Your task to perform on an android device: Add duracell triple a to the cart on walmart.com Image 0: 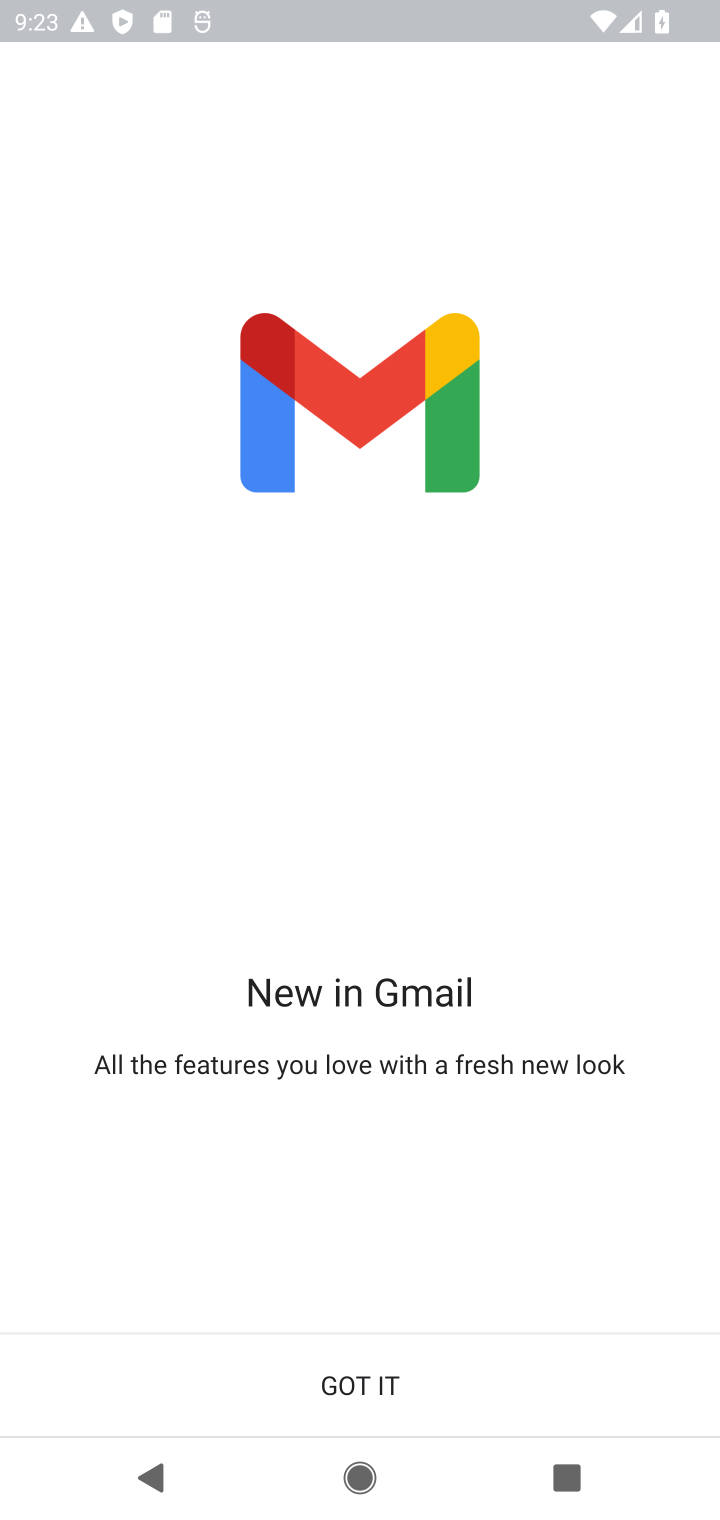
Step 0: press home button
Your task to perform on an android device: Add duracell triple a to the cart on walmart.com Image 1: 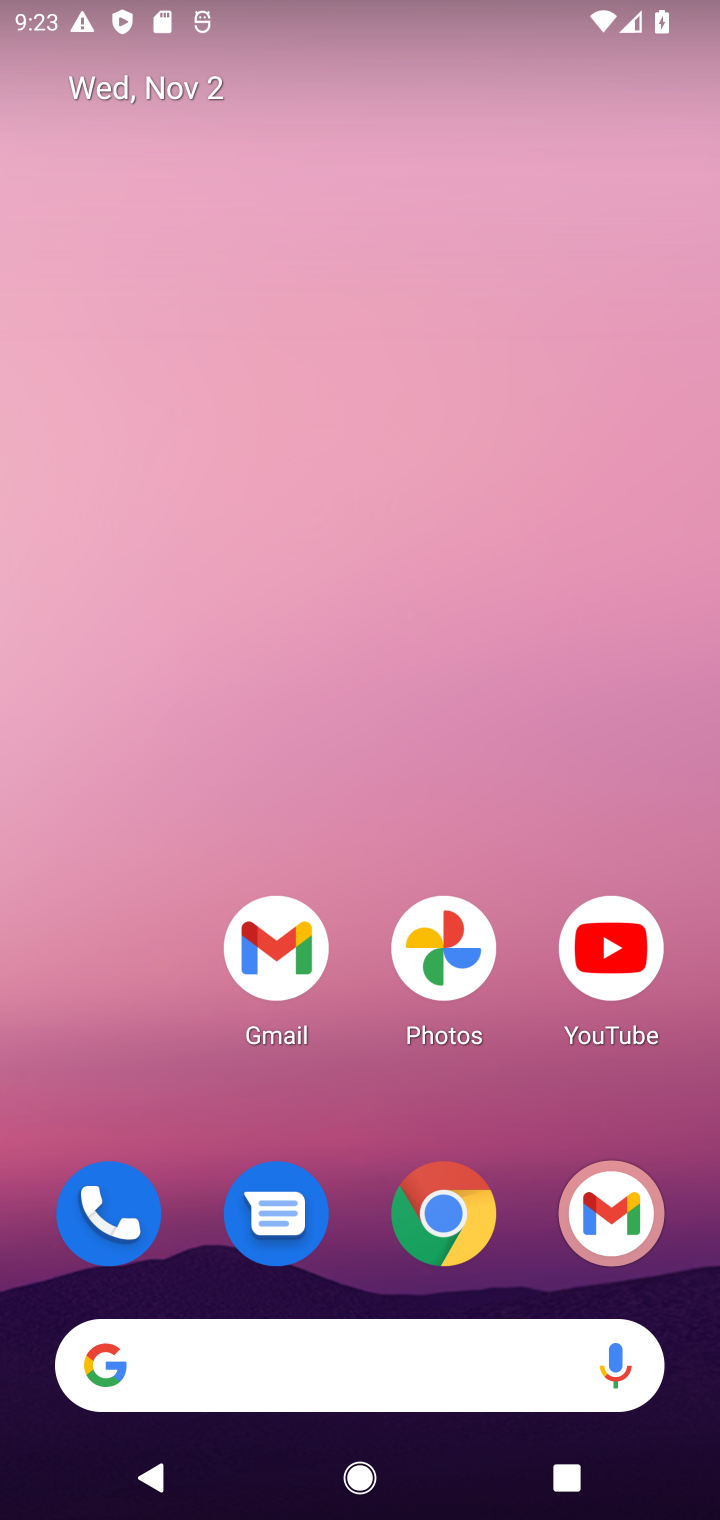
Step 1: click (458, 1208)
Your task to perform on an android device: Add duracell triple a to the cart on walmart.com Image 2: 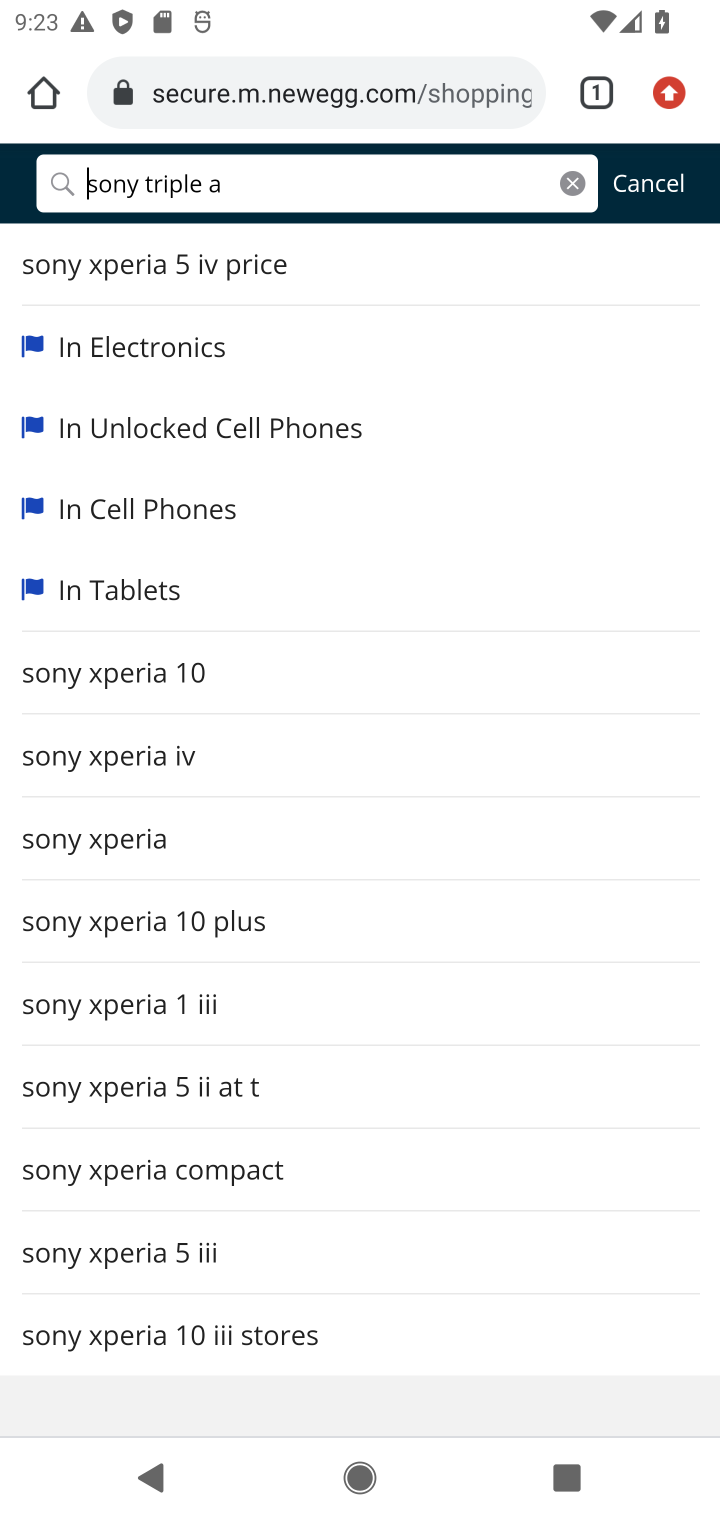
Step 2: click (262, 112)
Your task to perform on an android device: Add duracell triple a to the cart on walmart.com Image 3: 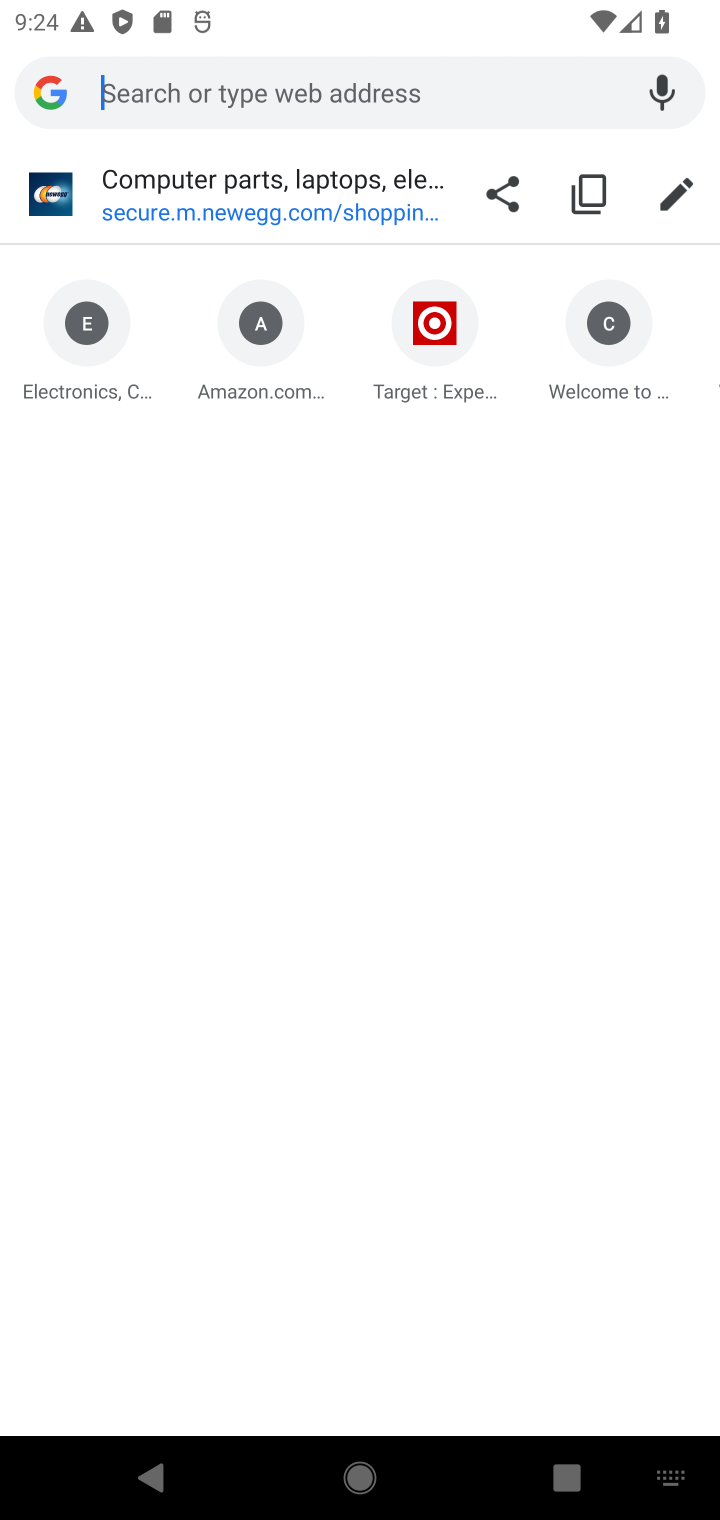
Step 3: type "walmart.com"
Your task to perform on an android device: Add duracell triple a to the cart on walmart.com Image 4: 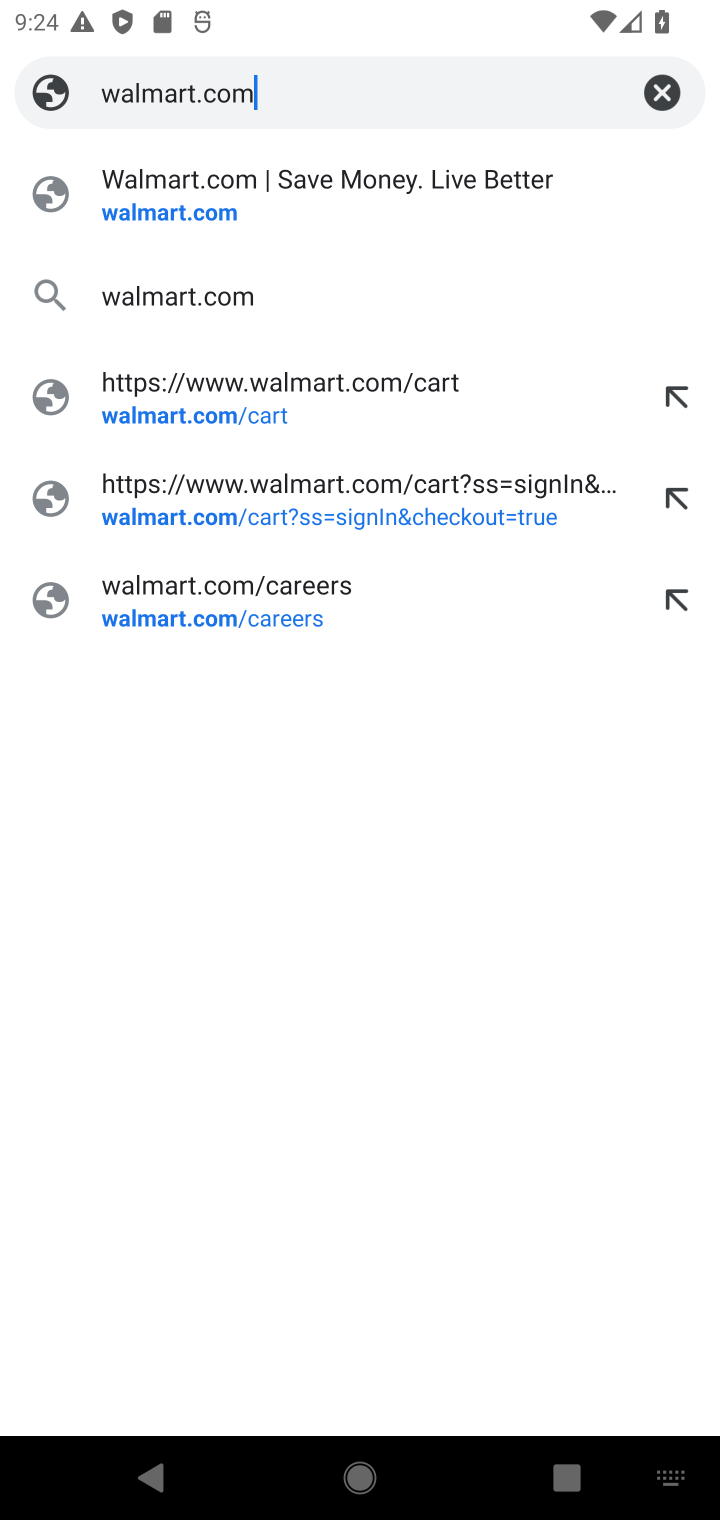
Step 4: click (203, 225)
Your task to perform on an android device: Add duracell triple a to the cart on walmart.com Image 5: 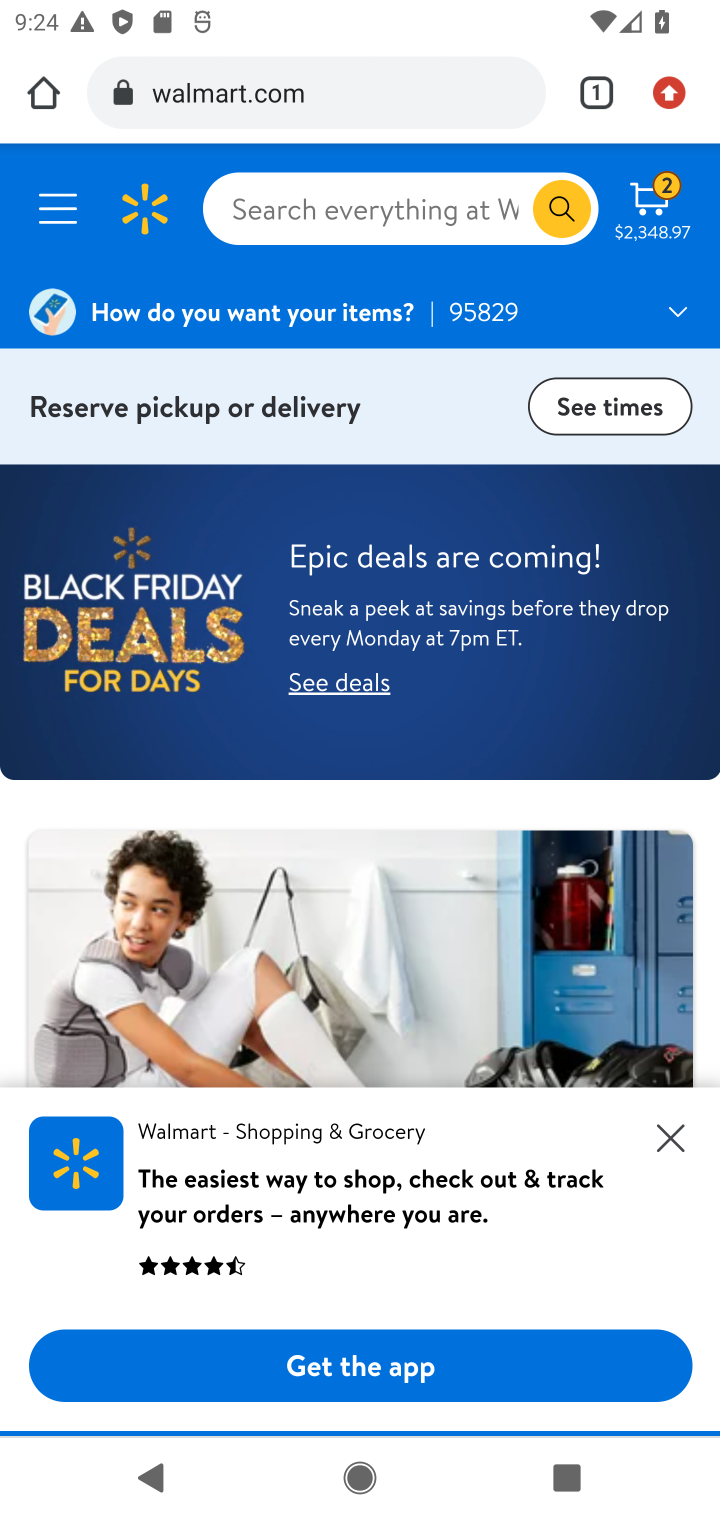
Step 5: click (274, 203)
Your task to perform on an android device: Add duracell triple a to the cart on walmart.com Image 6: 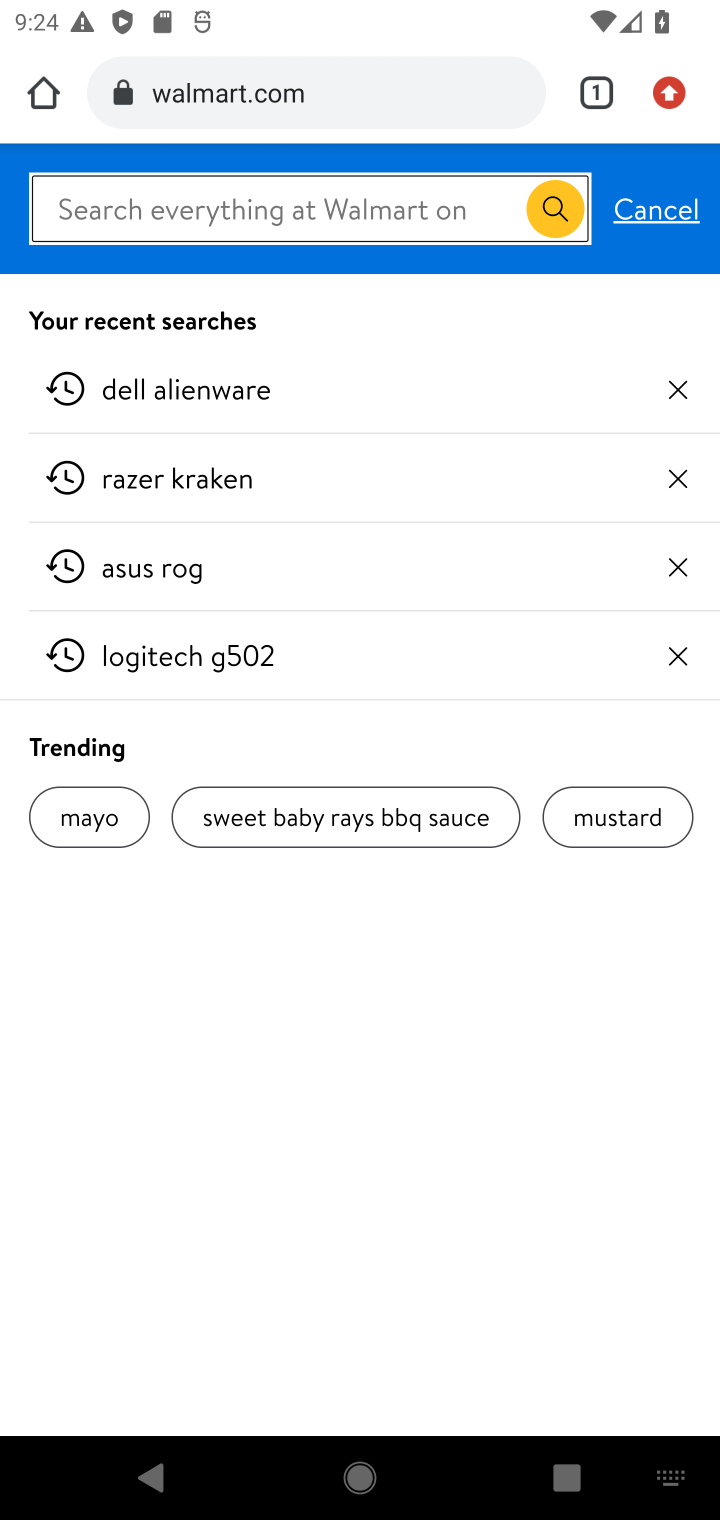
Step 6: type "duracell triple a"
Your task to perform on an android device: Add duracell triple a to the cart on walmart.com Image 7: 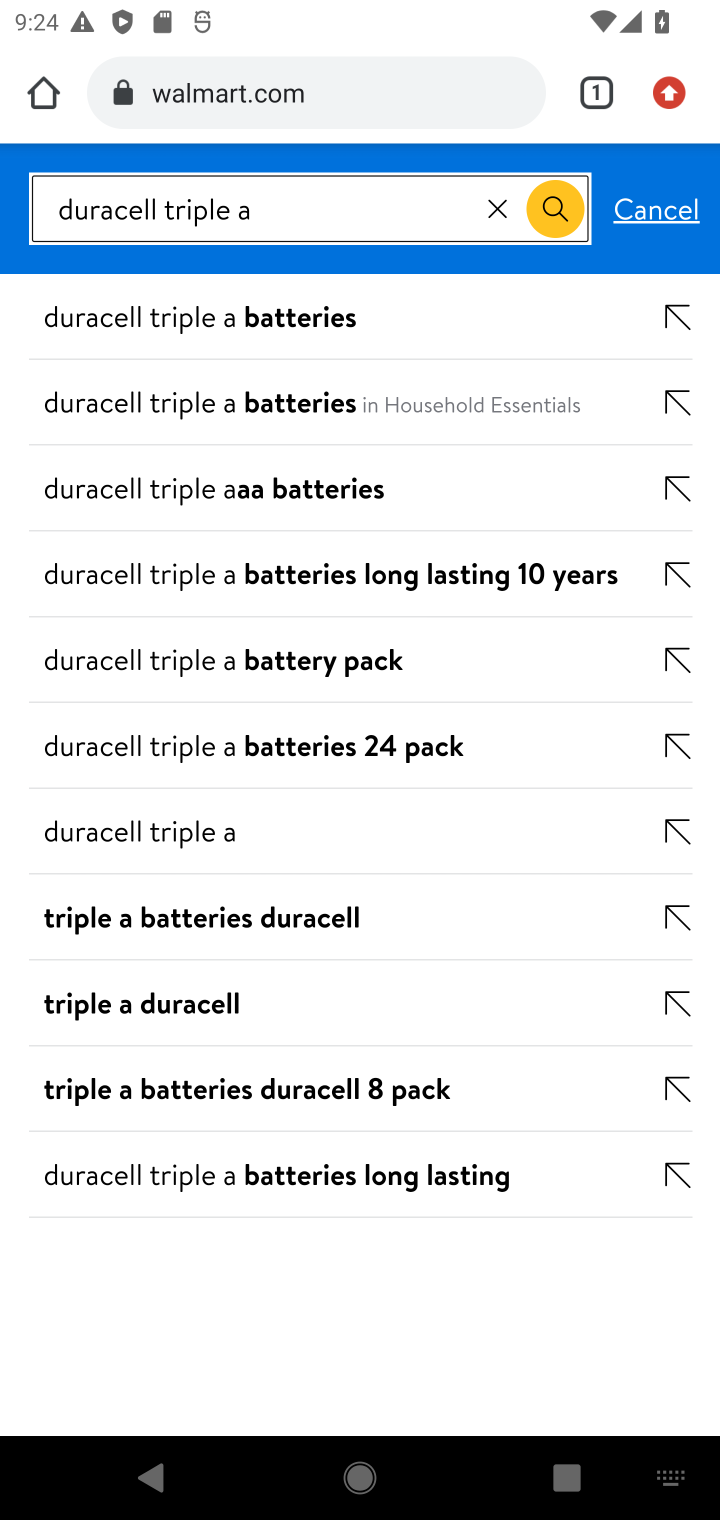
Step 7: click (145, 315)
Your task to perform on an android device: Add duracell triple a to the cart on walmart.com Image 8: 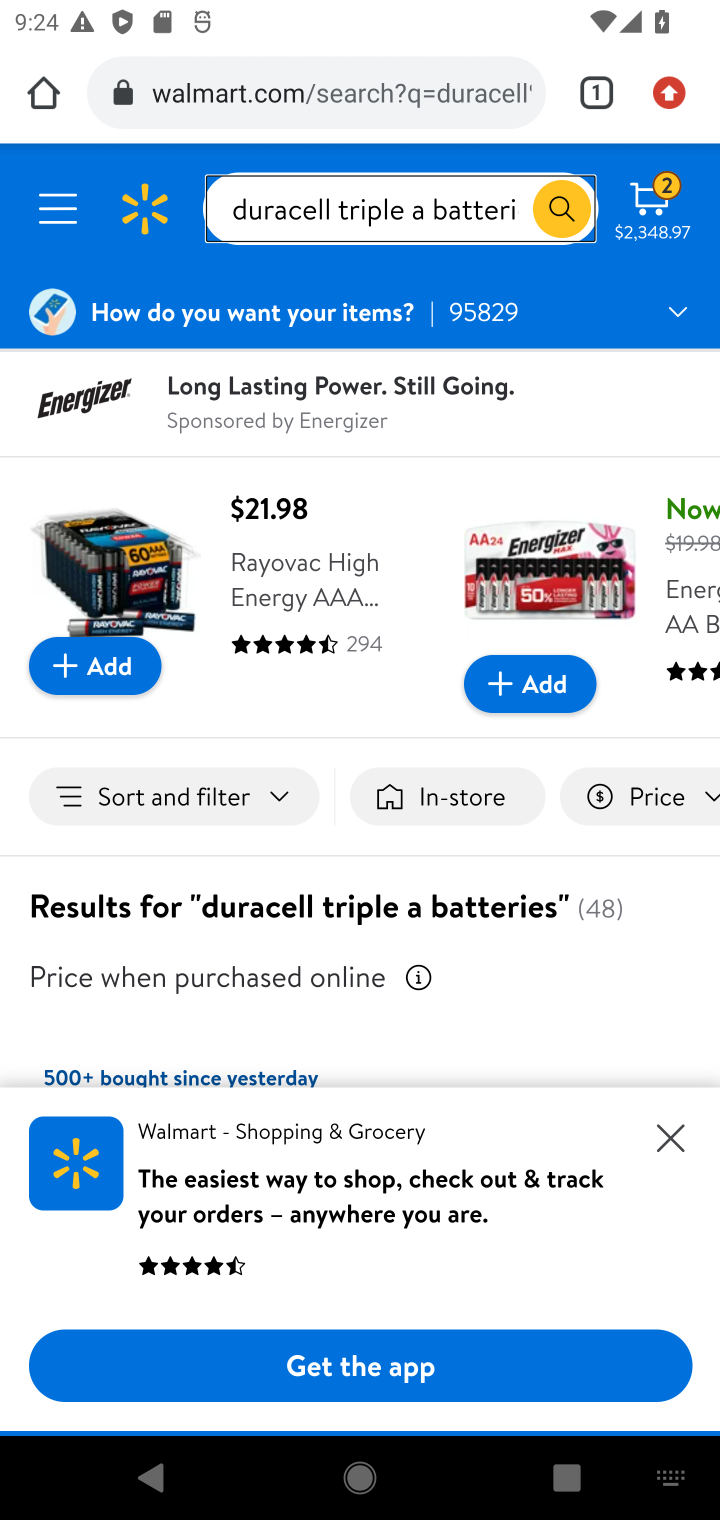
Step 8: click (659, 1143)
Your task to perform on an android device: Add duracell triple a to the cart on walmart.com Image 9: 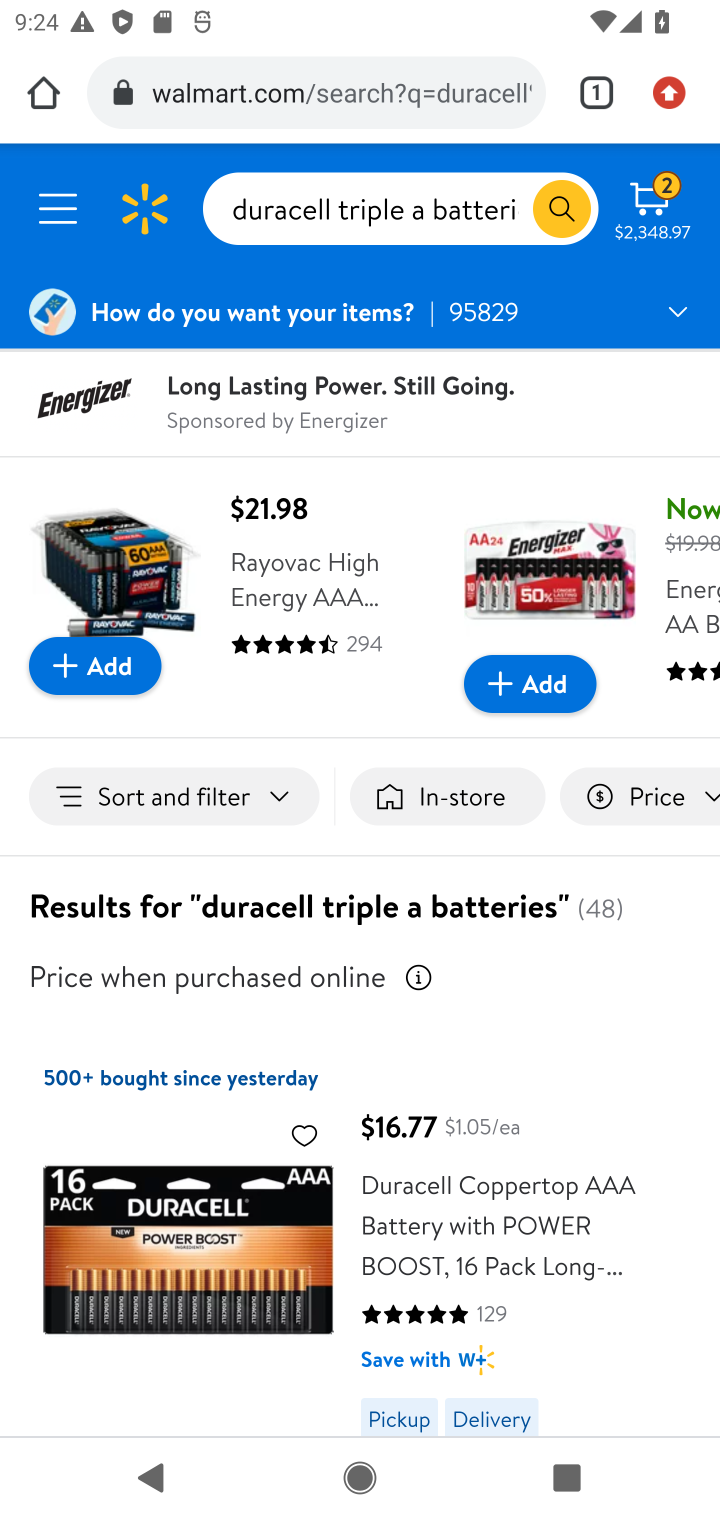
Step 9: drag from (350, 944) to (380, 588)
Your task to perform on an android device: Add duracell triple a to the cart on walmart.com Image 10: 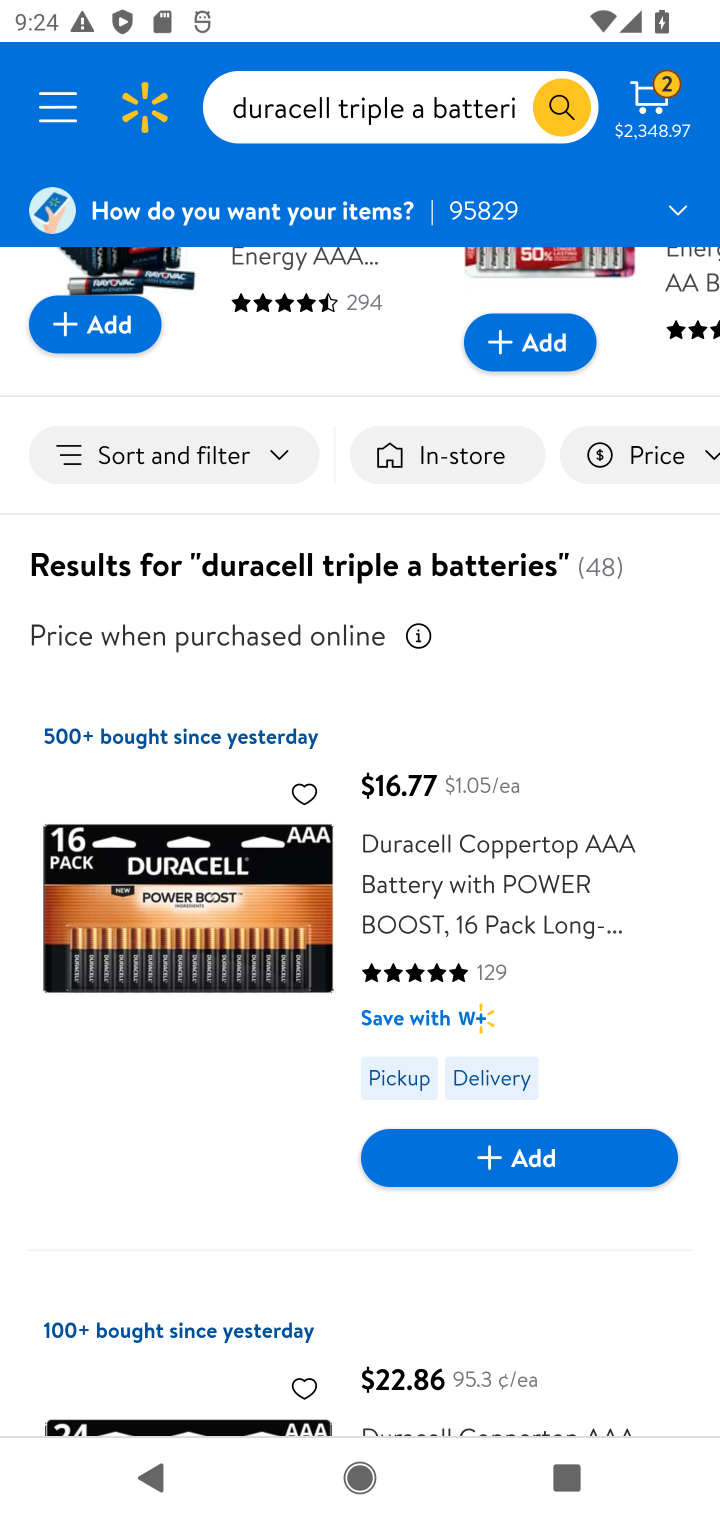
Step 10: click (285, 933)
Your task to perform on an android device: Add duracell triple a to the cart on walmart.com Image 11: 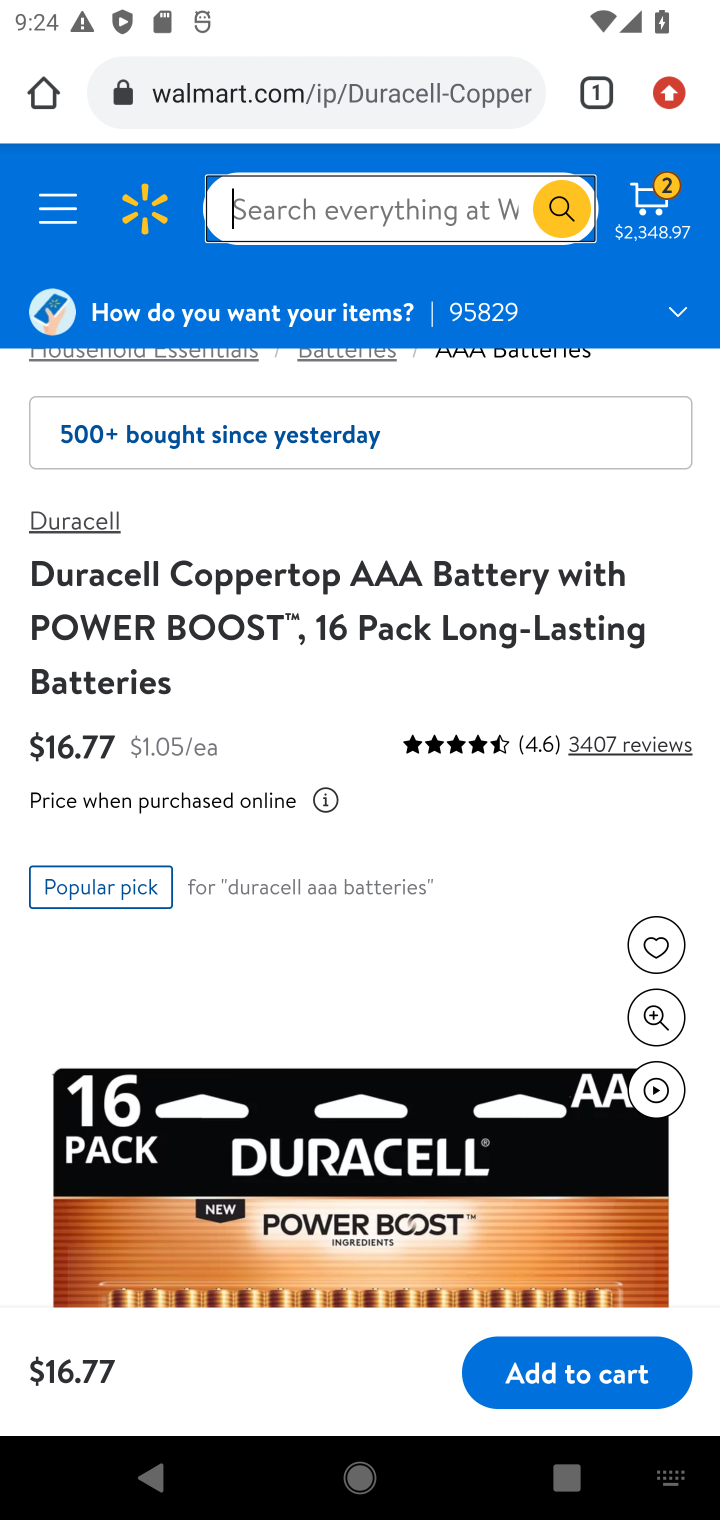
Step 11: click (539, 1380)
Your task to perform on an android device: Add duracell triple a to the cart on walmart.com Image 12: 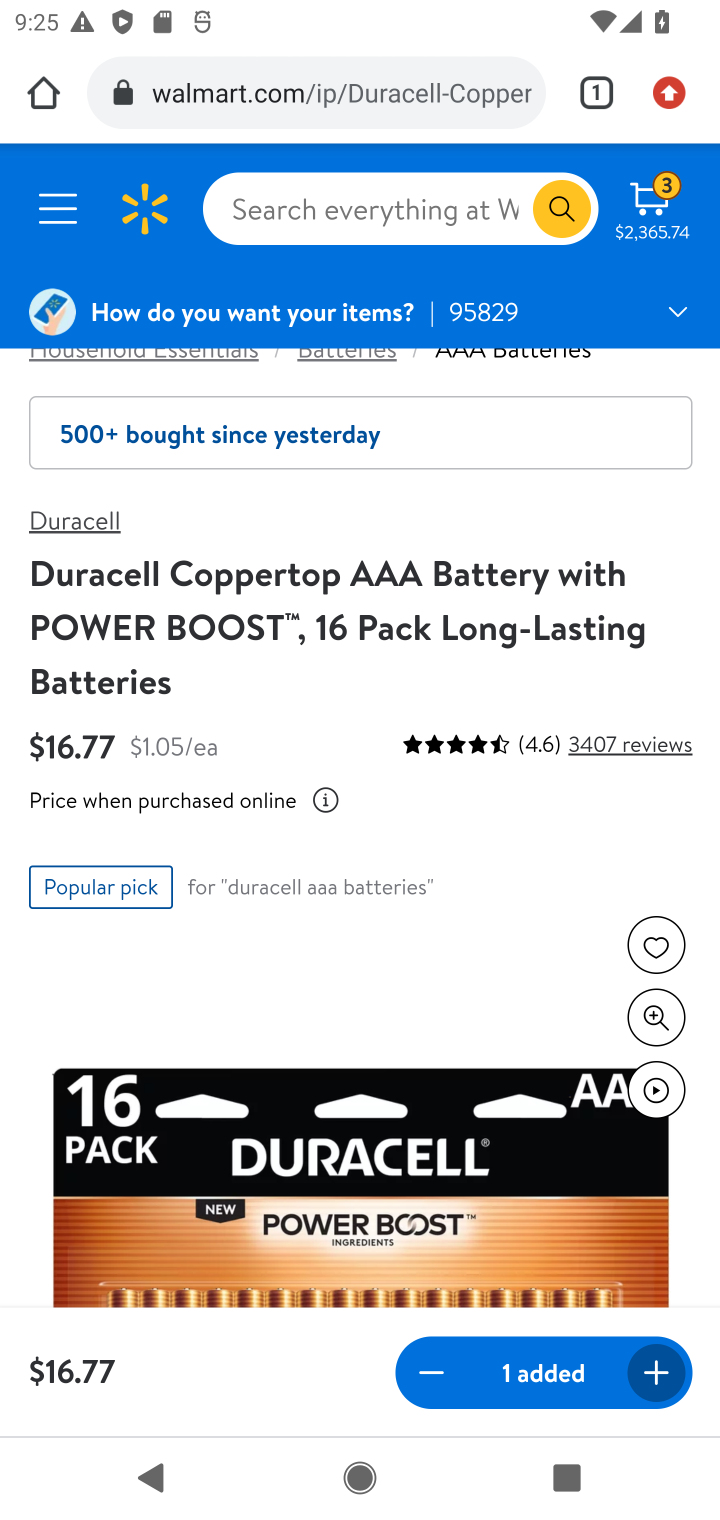
Step 12: task complete